Your task to perform on an android device: toggle priority inbox in the gmail app Image 0: 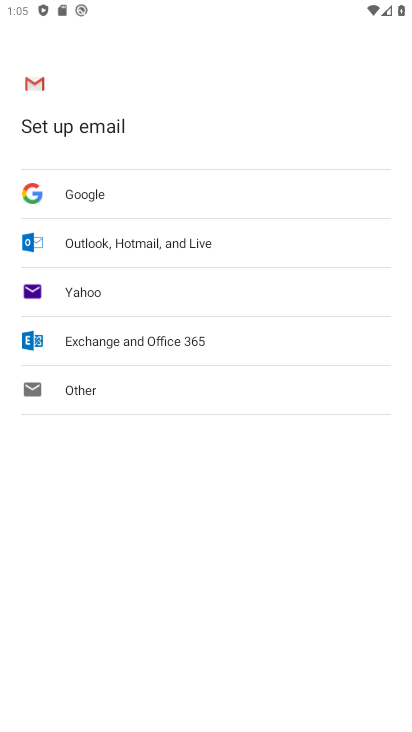
Step 0: press home button
Your task to perform on an android device: toggle priority inbox in the gmail app Image 1: 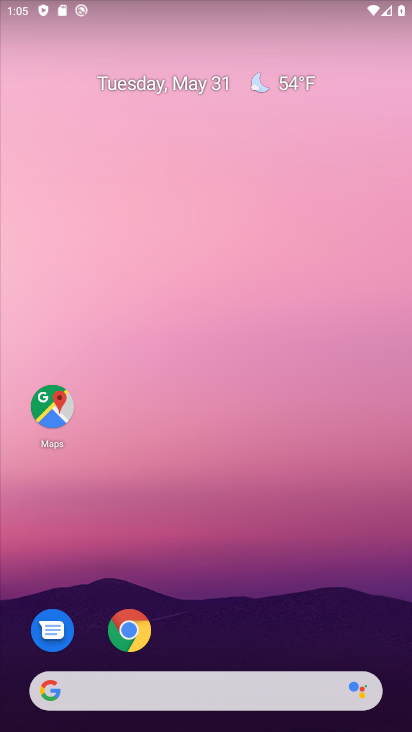
Step 1: drag from (193, 602) to (188, 56)
Your task to perform on an android device: toggle priority inbox in the gmail app Image 2: 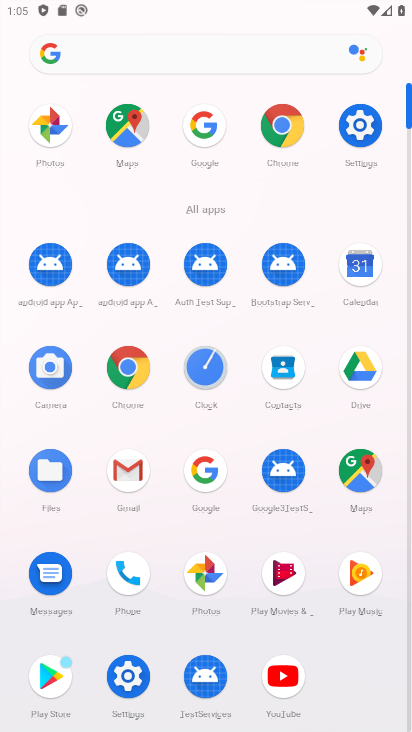
Step 2: click (135, 461)
Your task to perform on an android device: toggle priority inbox in the gmail app Image 3: 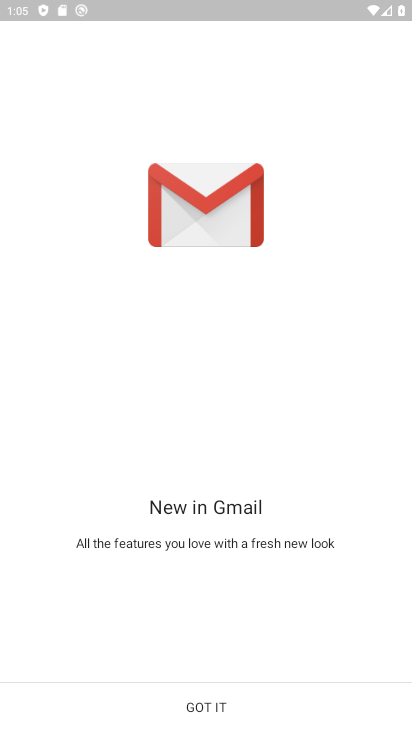
Step 3: click (206, 705)
Your task to perform on an android device: toggle priority inbox in the gmail app Image 4: 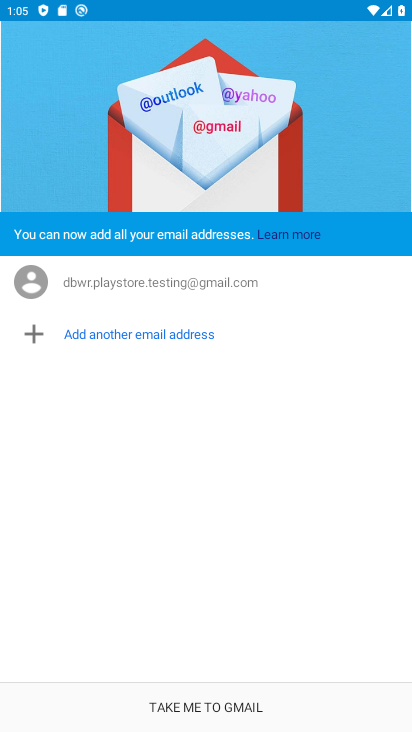
Step 4: click (206, 705)
Your task to perform on an android device: toggle priority inbox in the gmail app Image 5: 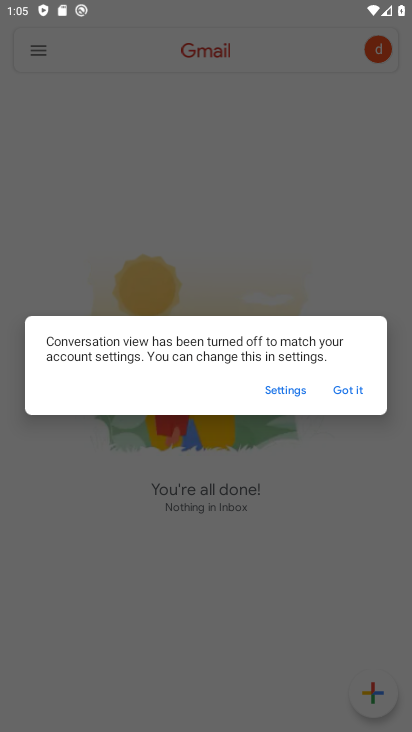
Step 5: drag from (362, 385) to (224, 297)
Your task to perform on an android device: toggle priority inbox in the gmail app Image 6: 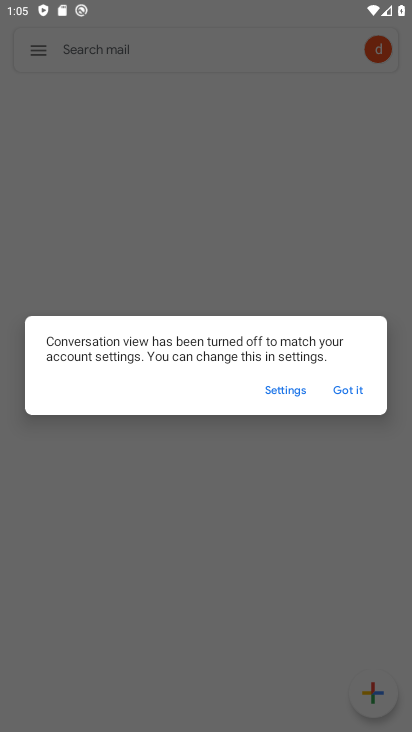
Step 6: click (273, 389)
Your task to perform on an android device: toggle priority inbox in the gmail app Image 7: 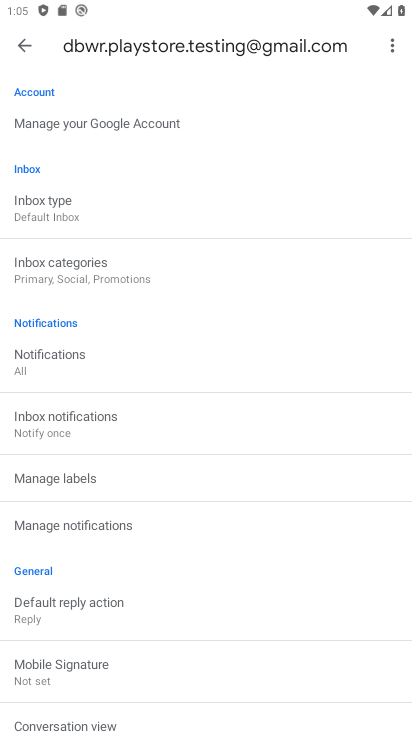
Step 7: click (83, 215)
Your task to perform on an android device: toggle priority inbox in the gmail app Image 8: 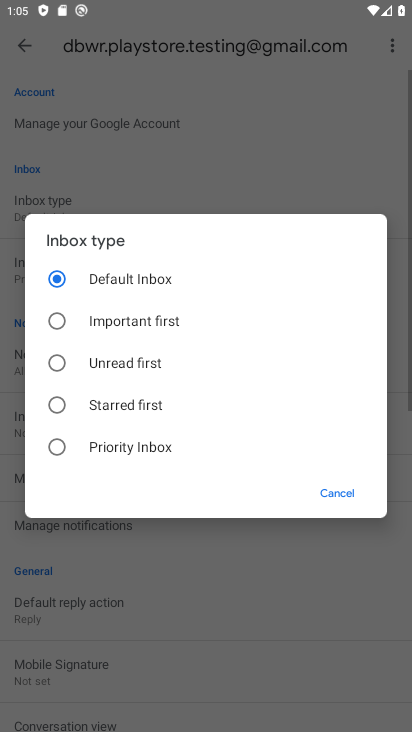
Step 8: click (58, 445)
Your task to perform on an android device: toggle priority inbox in the gmail app Image 9: 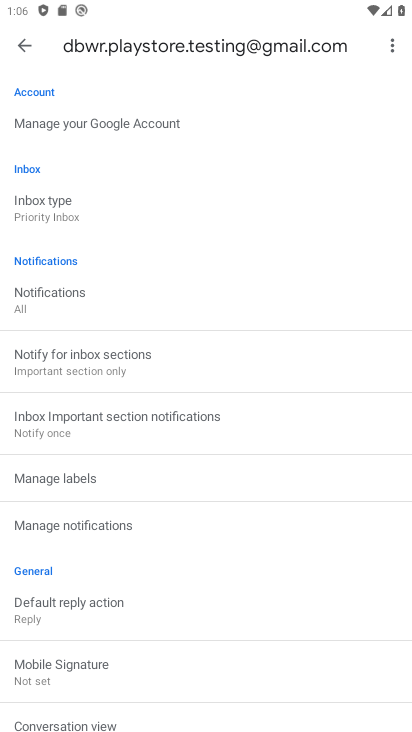
Step 9: task complete